Your task to perform on an android device: change the clock display to analog Image 0: 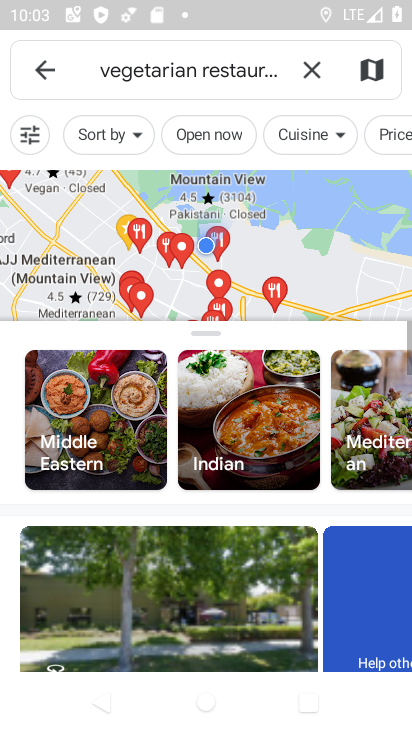
Step 0: press back button
Your task to perform on an android device: change the clock display to analog Image 1: 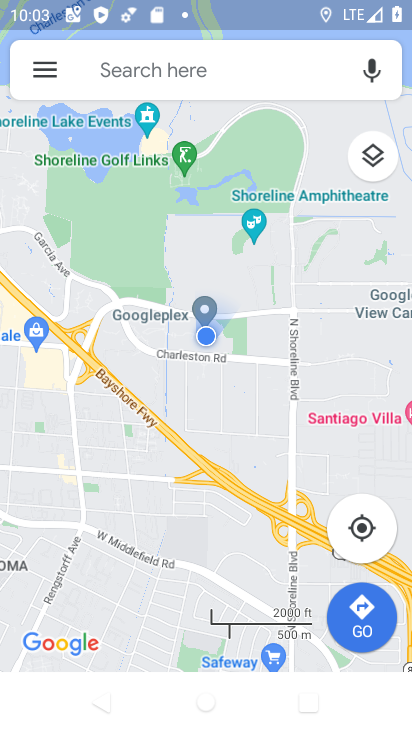
Step 1: press back button
Your task to perform on an android device: change the clock display to analog Image 2: 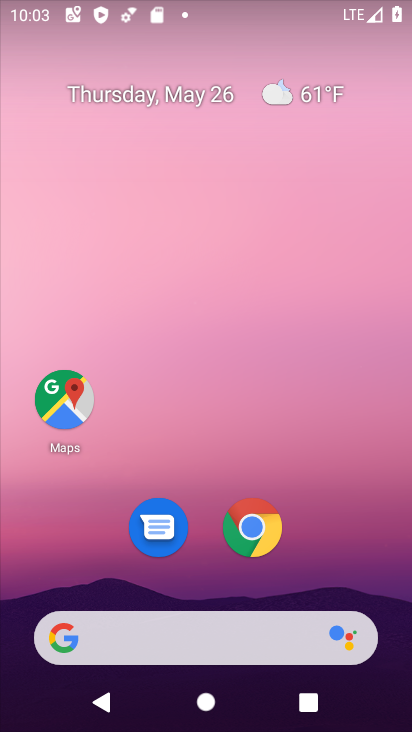
Step 2: drag from (182, 577) to (278, 28)
Your task to perform on an android device: change the clock display to analog Image 3: 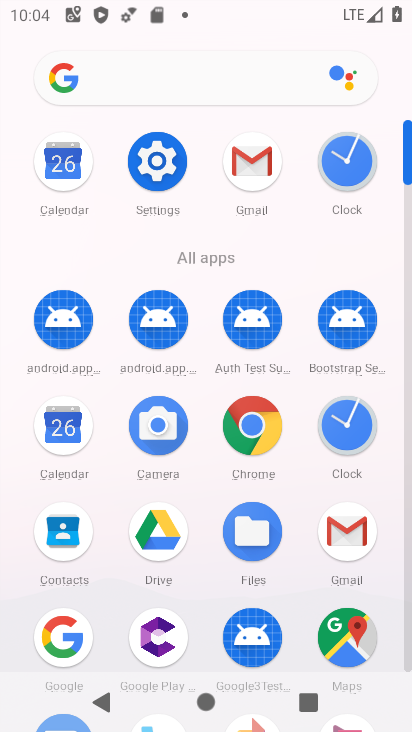
Step 3: click (340, 423)
Your task to perform on an android device: change the clock display to analog Image 4: 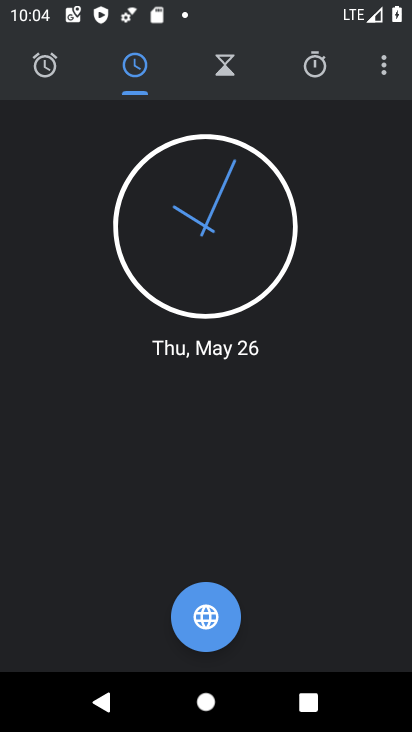
Step 4: click (376, 72)
Your task to perform on an android device: change the clock display to analog Image 5: 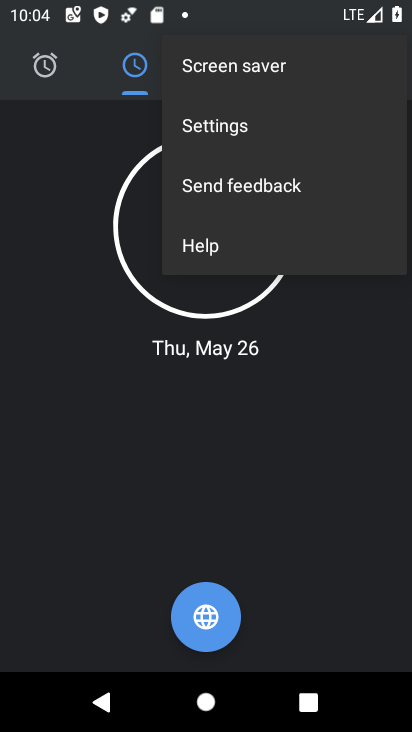
Step 5: click (232, 124)
Your task to perform on an android device: change the clock display to analog Image 6: 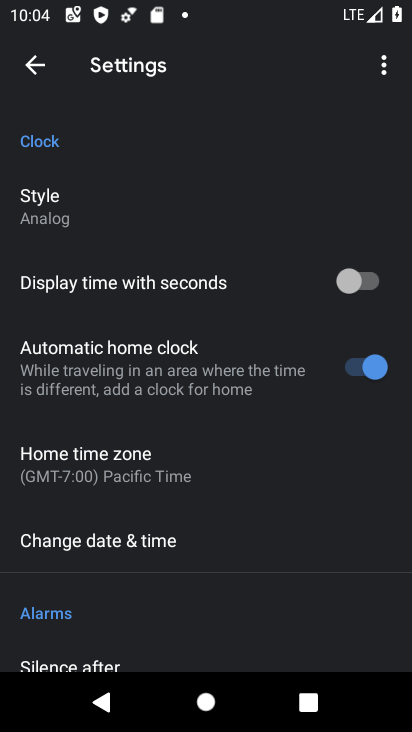
Step 6: task complete